Your task to perform on an android device: open app "Etsy: Buy & Sell Unique Items" (install if not already installed) Image 0: 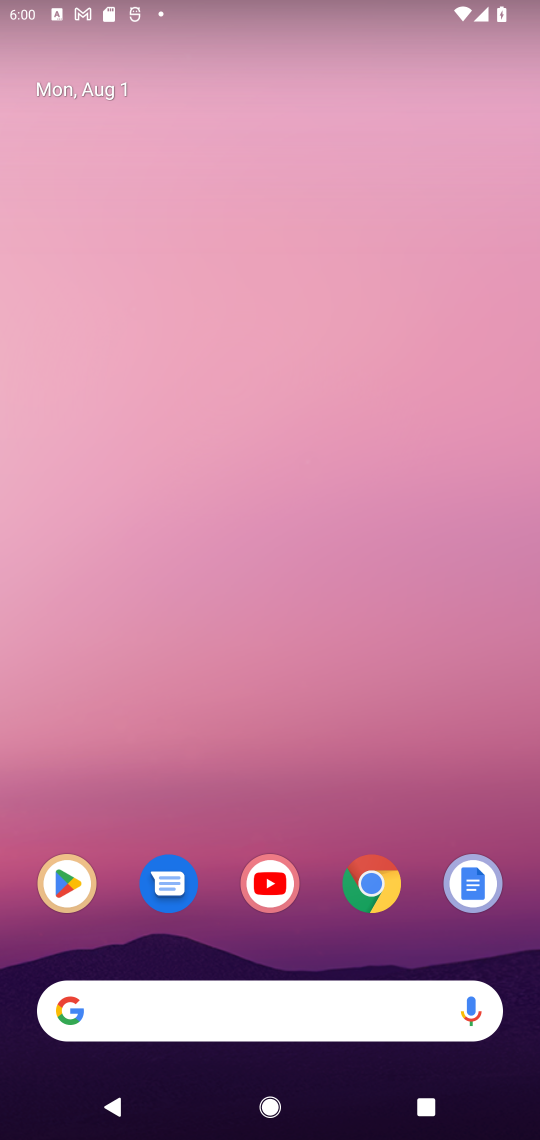
Step 0: click (67, 878)
Your task to perform on an android device: open app "Etsy: Buy & Sell Unique Items" (install if not already installed) Image 1: 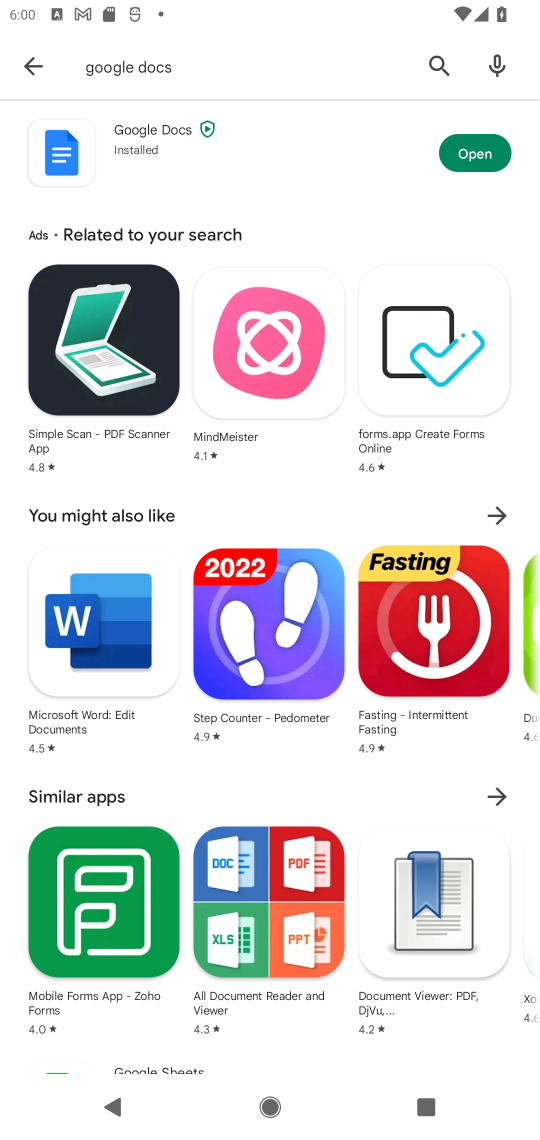
Step 1: click (28, 53)
Your task to perform on an android device: open app "Etsy: Buy & Sell Unique Items" (install if not already installed) Image 2: 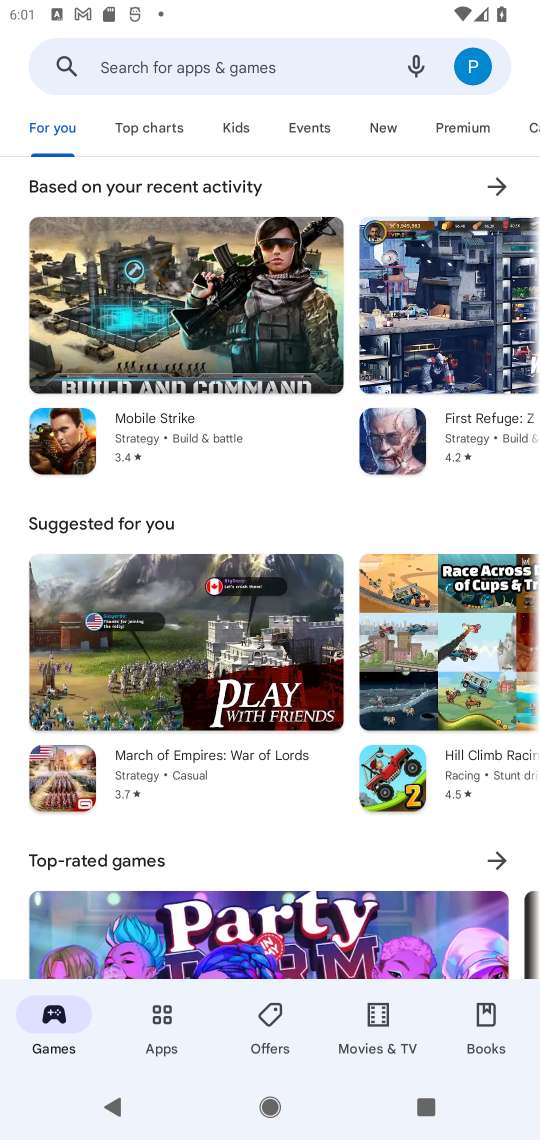
Step 2: click (156, 58)
Your task to perform on an android device: open app "Etsy: Buy & Sell Unique Items" (install if not already installed) Image 3: 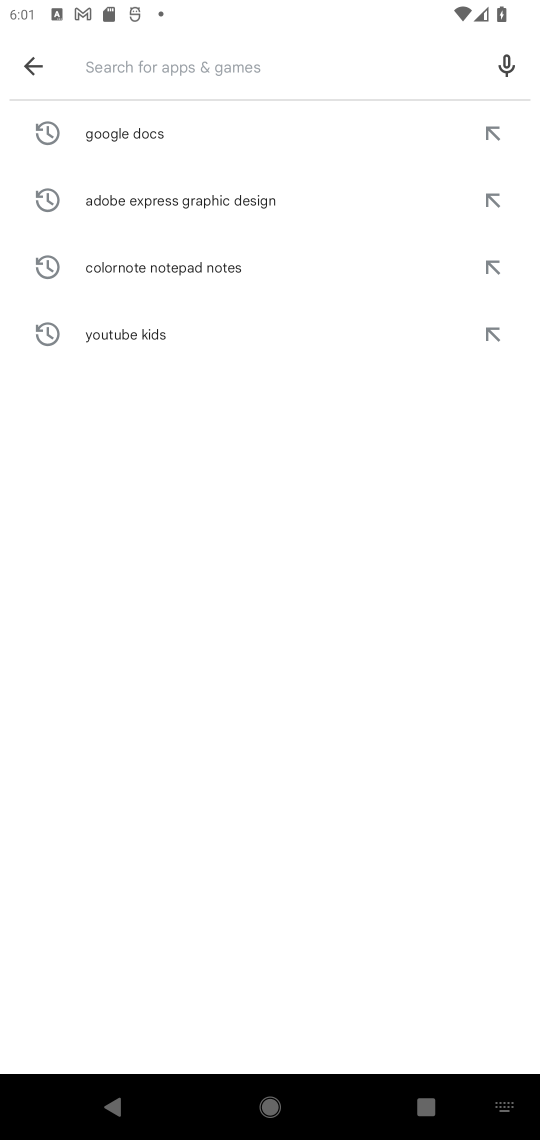
Step 3: type "Etsy: Buy & Sell Unique Items"
Your task to perform on an android device: open app "Etsy: Buy & Sell Unique Items" (install if not already installed) Image 4: 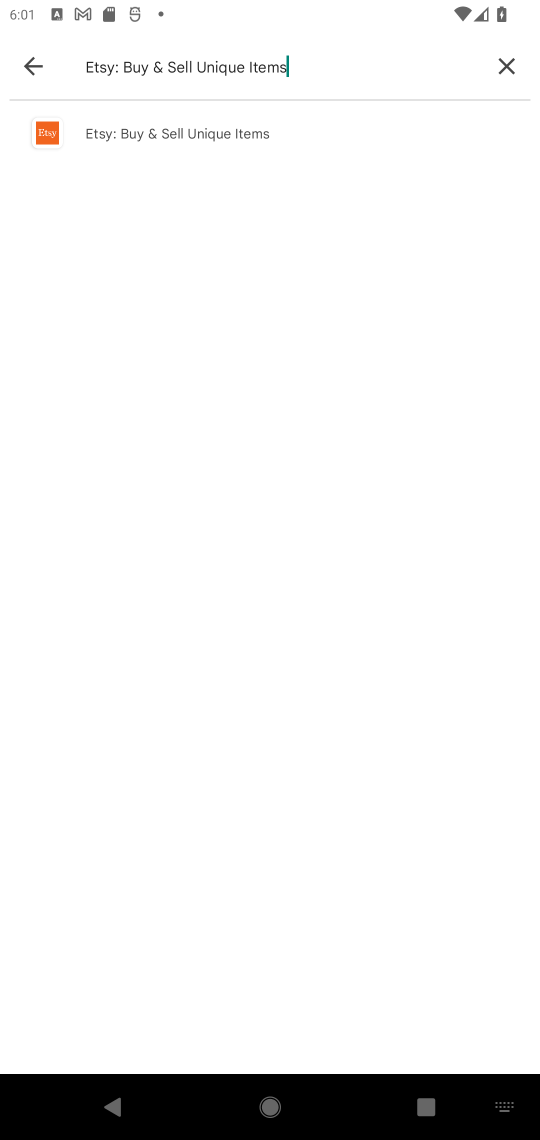
Step 4: click (207, 140)
Your task to perform on an android device: open app "Etsy: Buy & Sell Unique Items" (install if not already installed) Image 5: 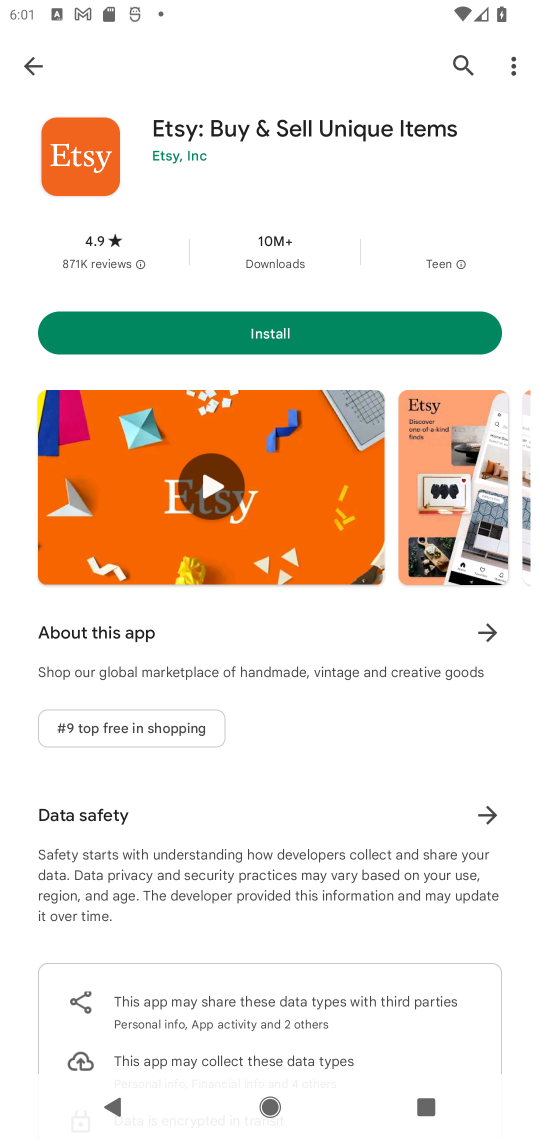
Step 5: click (316, 338)
Your task to perform on an android device: open app "Etsy: Buy & Sell Unique Items" (install if not already installed) Image 6: 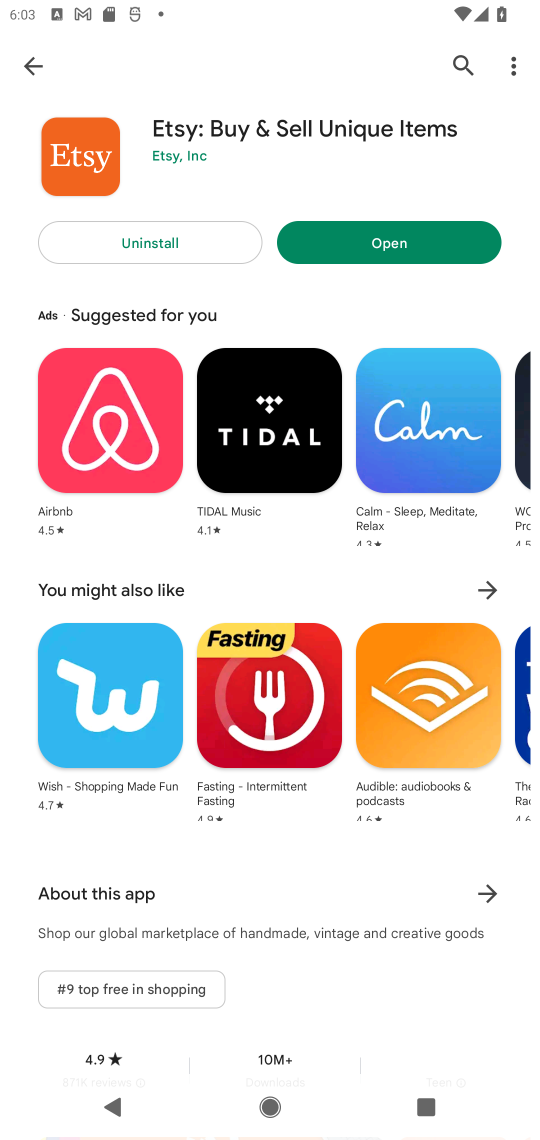
Step 6: click (371, 251)
Your task to perform on an android device: open app "Etsy: Buy & Sell Unique Items" (install if not already installed) Image 7: 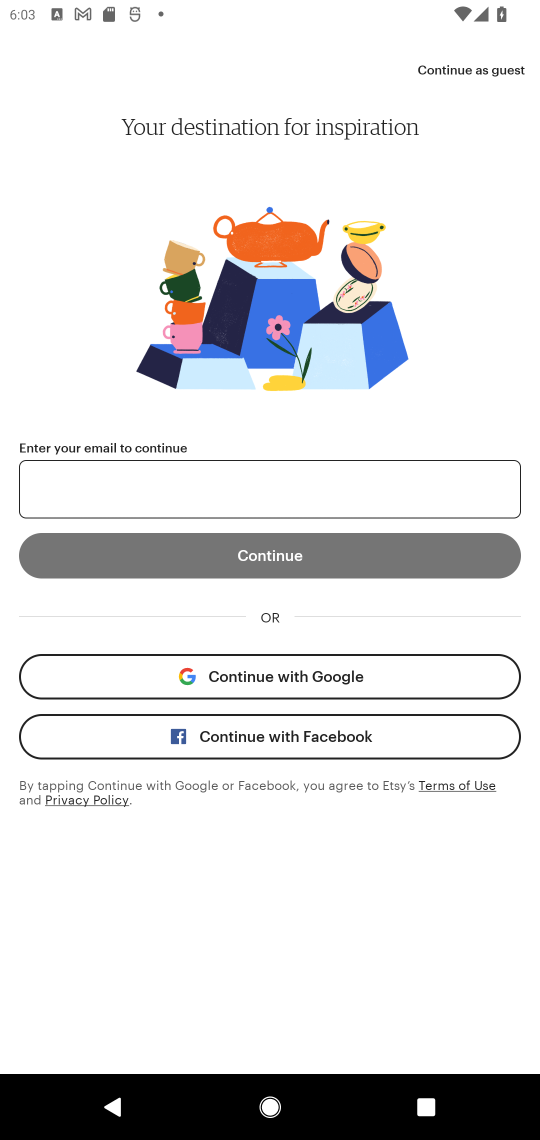
Step 7: task complete